Your task to perform on an android device: Open the phone app and click the voicemail tab. Image 0: 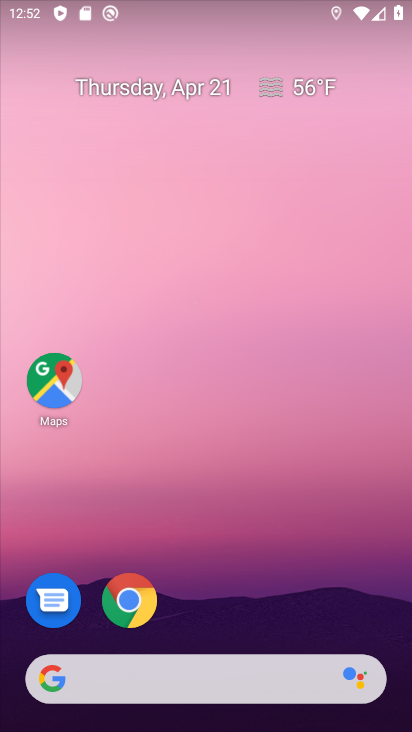
Step 0: drag from (359, 363) to (345, 265)
Your task to perform on an android device: Open the phone app and click the voicemail tab. Image 1: 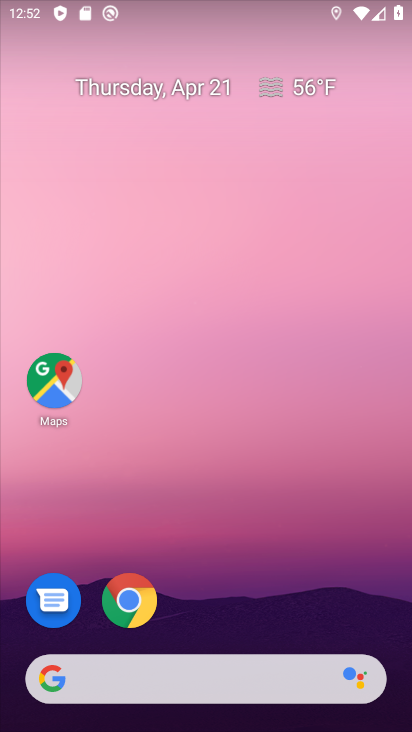
Step 1: click (376, 191)
Your task to perform on an android device: Open the phone app and click the voicemail tab. Image 2: 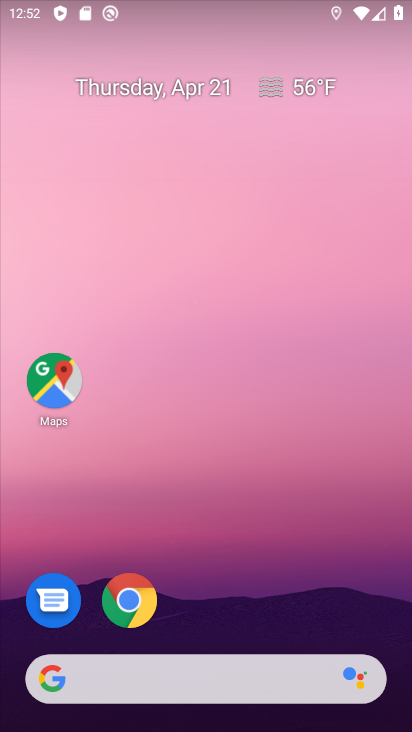
Step 2: drag from (392, 616) to (370, 310)
Your task to perform on an android device: Open the phone app and click the voicemail tab. Image 3: 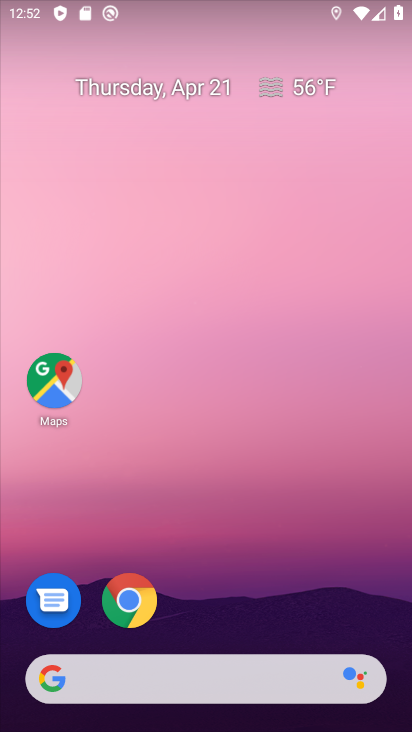
Step 3: drag from (377, 530) to (365, 272)
Your task to perform on an android device: Open the phone app and click the voicemail tab. Image 4: 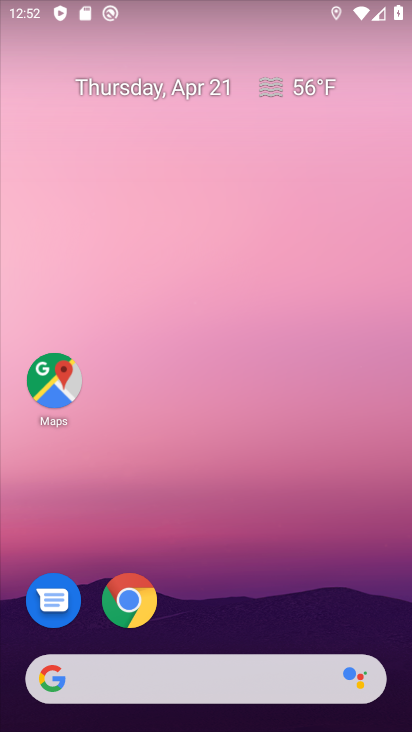
Step 4: click (355, 228)
Your task to perform on an android device: Open the phone app and click the voicemail tab. Image 5: 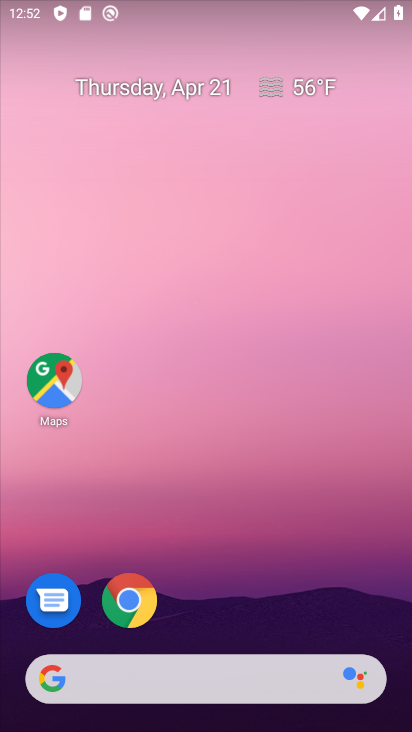
Step 5: drag from (357, 497) to (333, 197)
Your task to perform on an android device: Open the phone app and click the voicemail tab. Image 6: 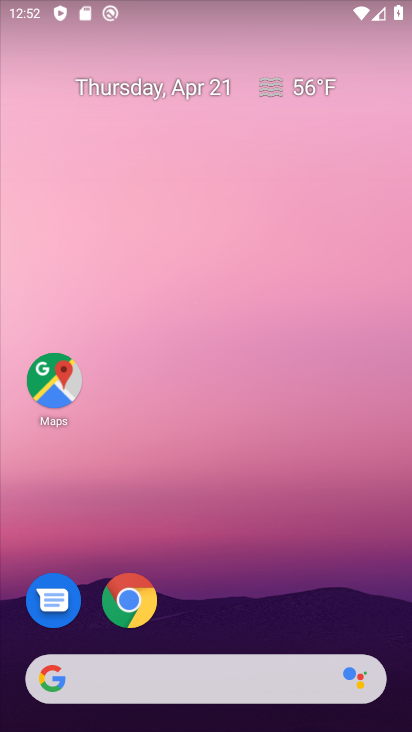
Step 6: drag from (385, 604) to (378, 124)
Your task to perform on an android device: Open the phone app and click the voicemail tab. Image 7: 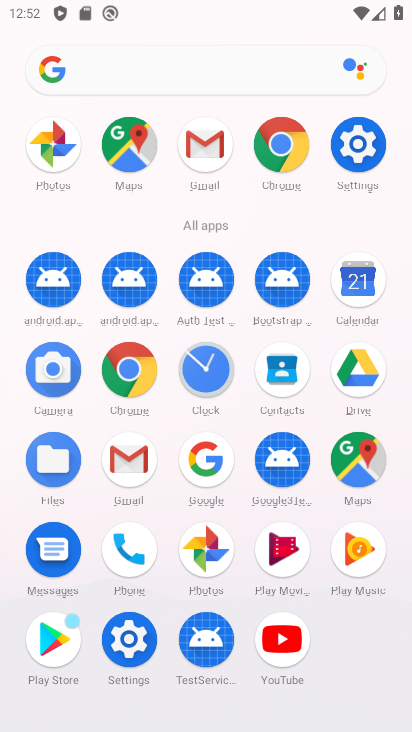
Step 7: click (139, 544)
Your task to perform on an android device: Open the phone app and click the voicemail tab. Image 8: 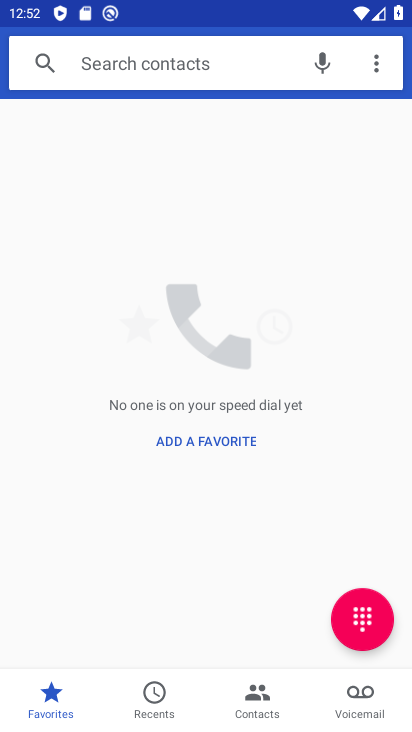
Step 8: click (366, 700)
Your task to perform on an android device: Open the phone app and click the voicemail tab. Image 9: 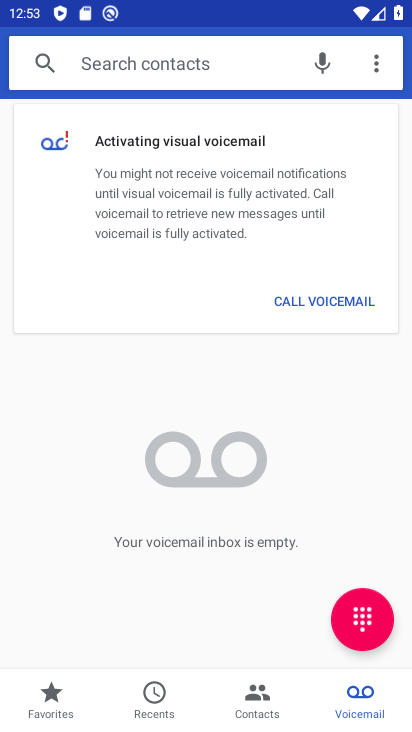
Step 9: task complete